Your task to perform on an android device: toggle javascript in the chrome app Image 0: 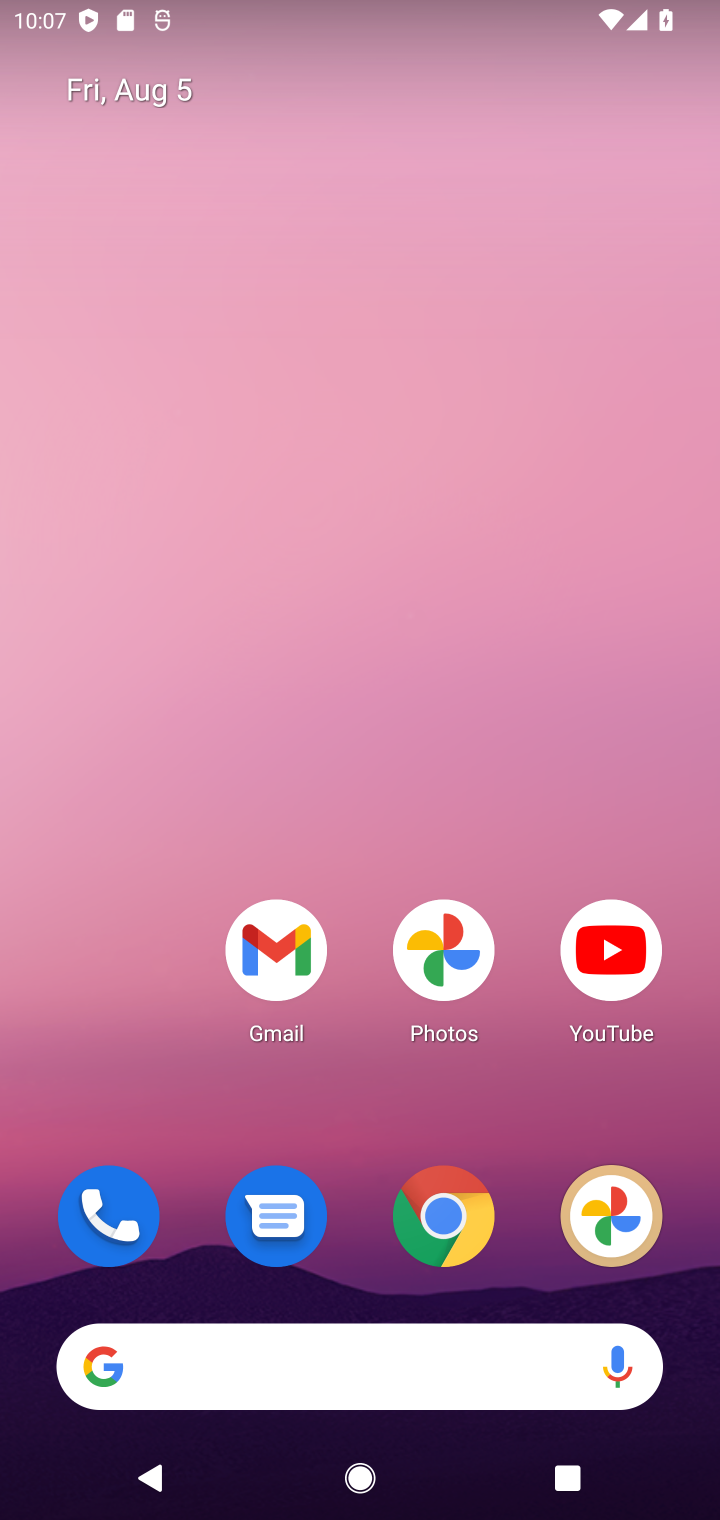
Step 0: drag from (412, 1400) to (440, 243)
Your task to perform on an android device: toggle javascript in the chrome app Image 1: 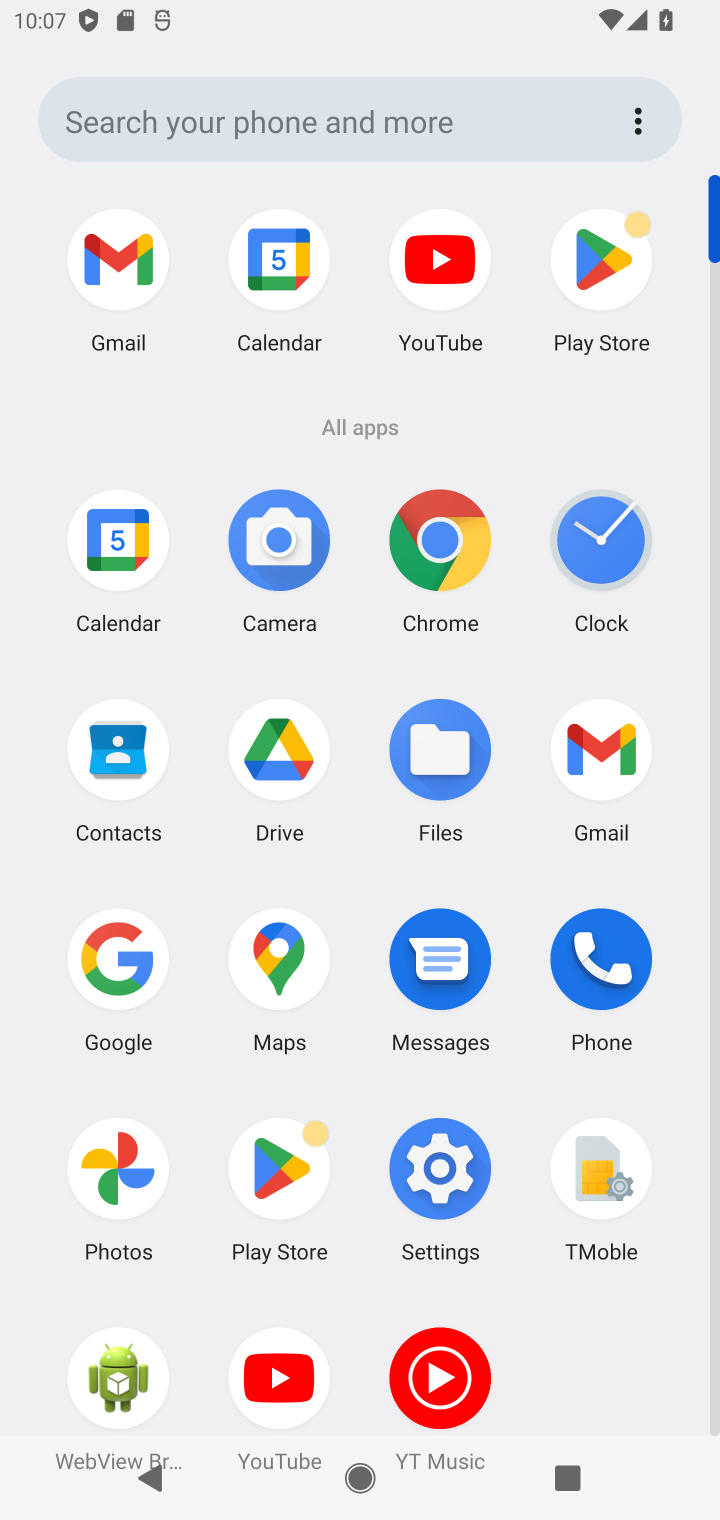
Step 1: click (424, 544)
Your task to perform on an android device: toggle javascript in the chrome app Image 2: 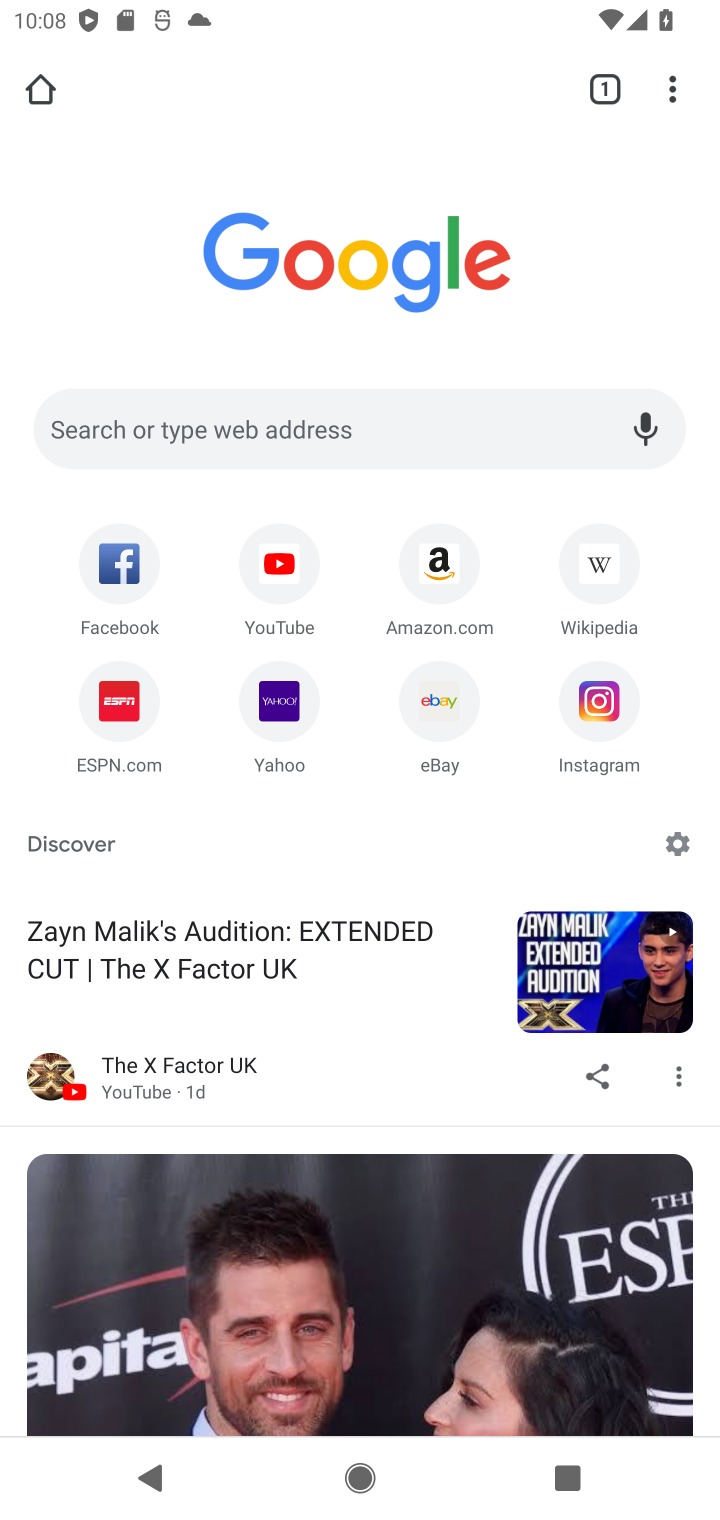
Step 2: drag from (669, 87) to (397, 794)
Your task to perform on an android device: toggle javascript in the chrome app Image 3: 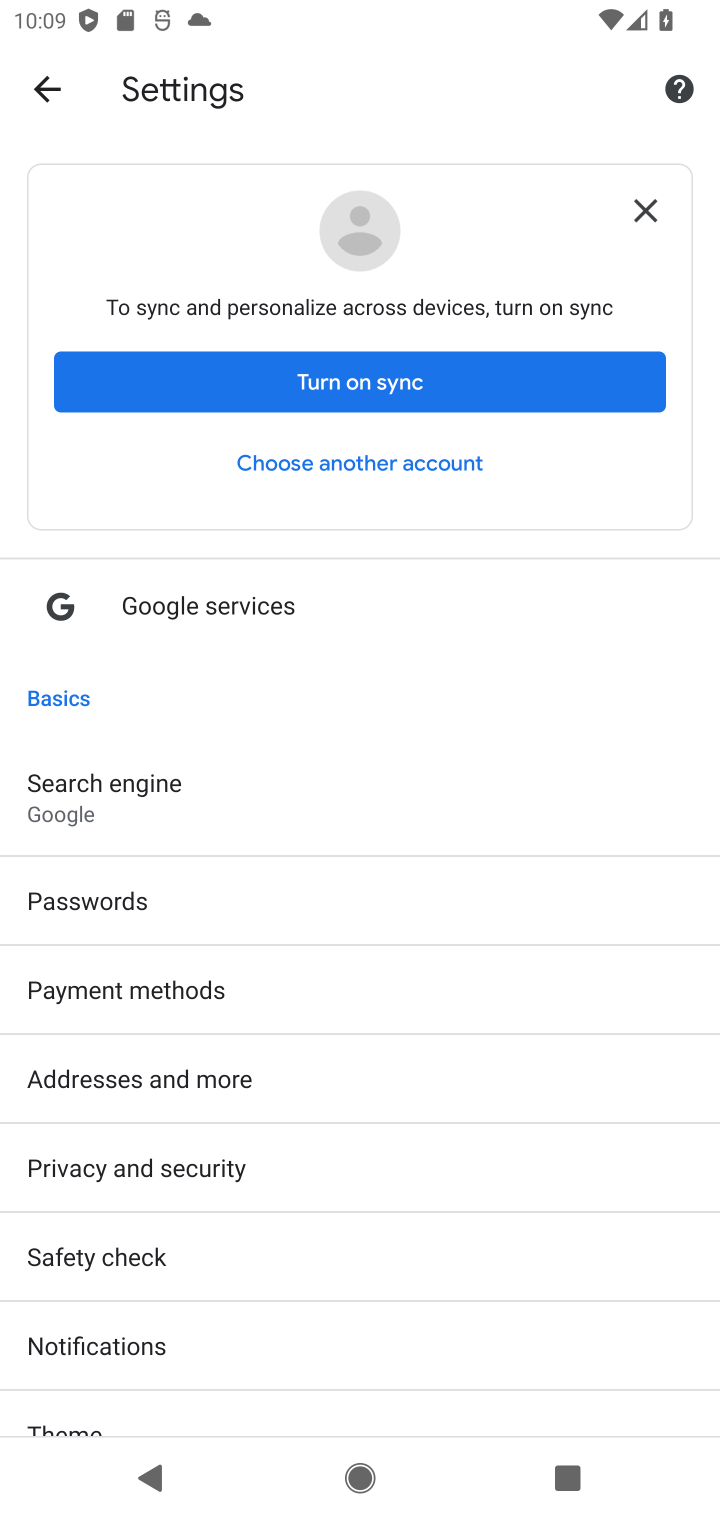
Step 3: drag from (284, 1278) to (355, 392)
Your task to perform on an android device: toggle javascript in the chrome app Image 4: 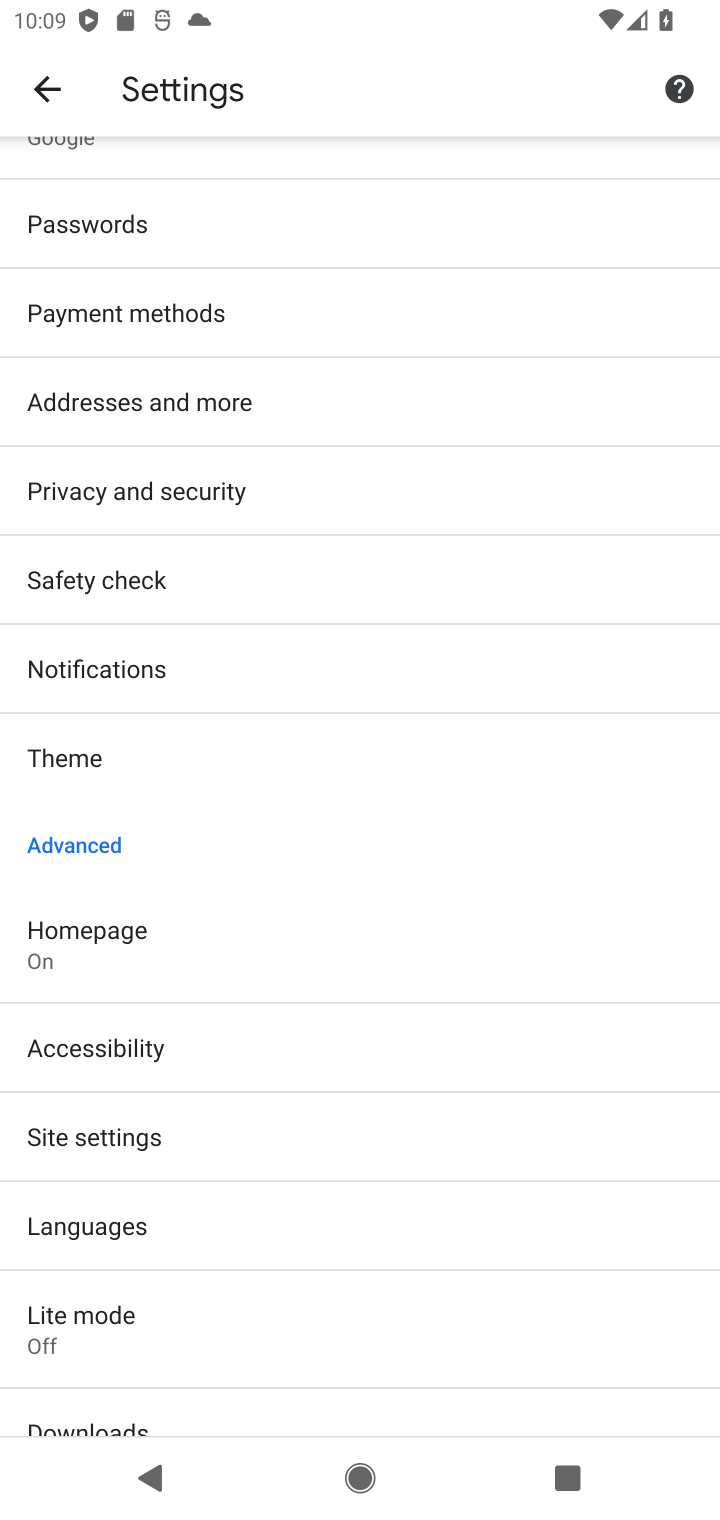
Step 4: click (213, 1135)
Your task to perform on an android device: toggle javascript in the chrome app Image 5: 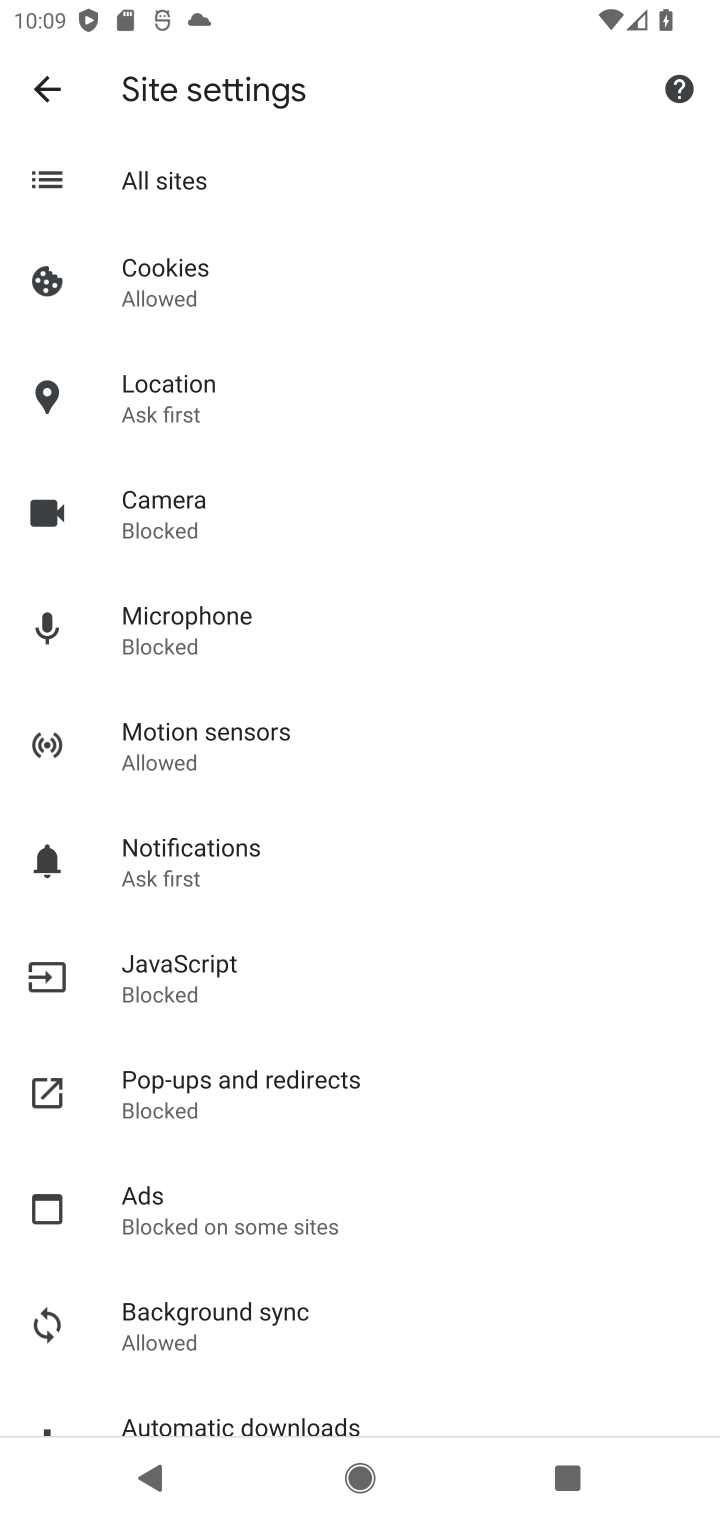
Step 5: click (246, 1012)
Your task to perform on an android device: toggle javascript in the chrome app Image 6: 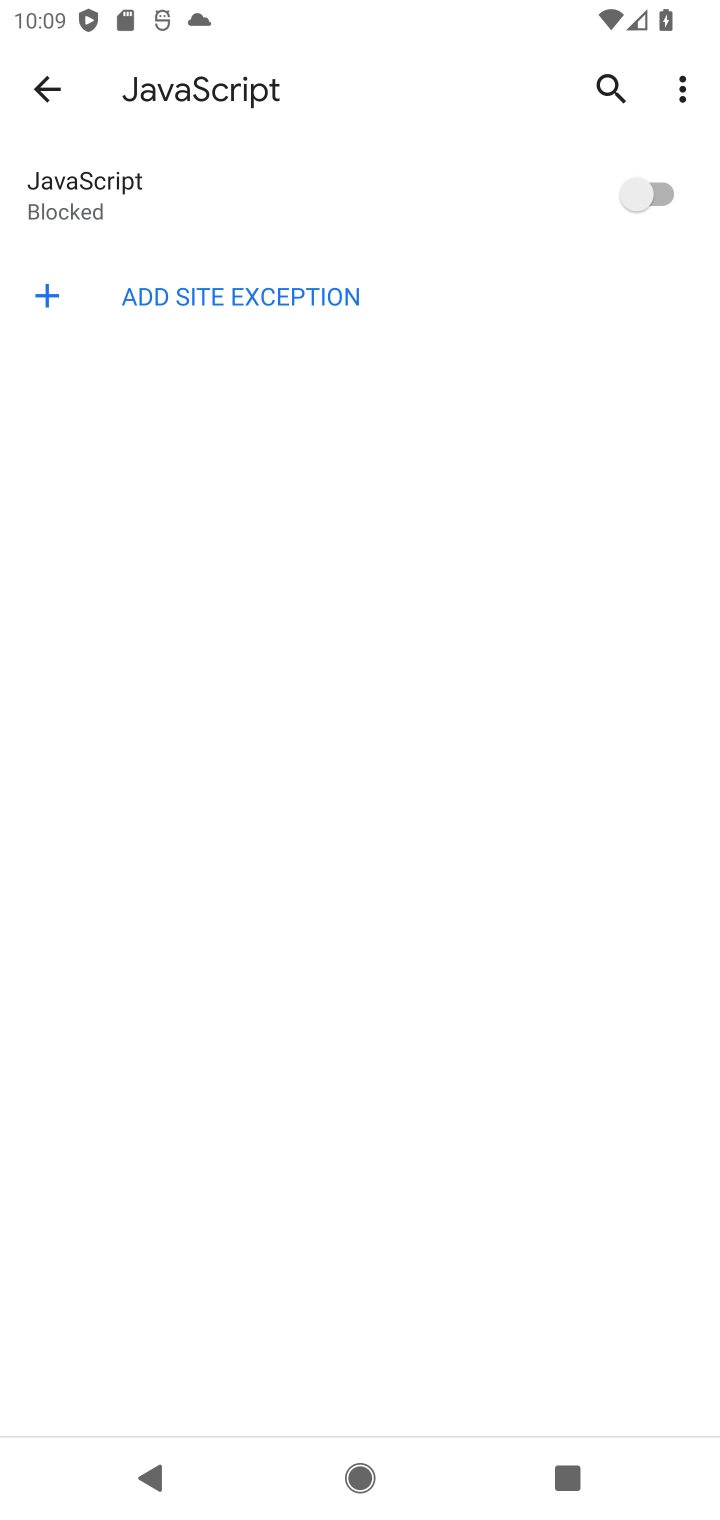
Step 6: click (661, 192)
Your task to perform on an android device: toggle javascript in the chrome app Image 7: 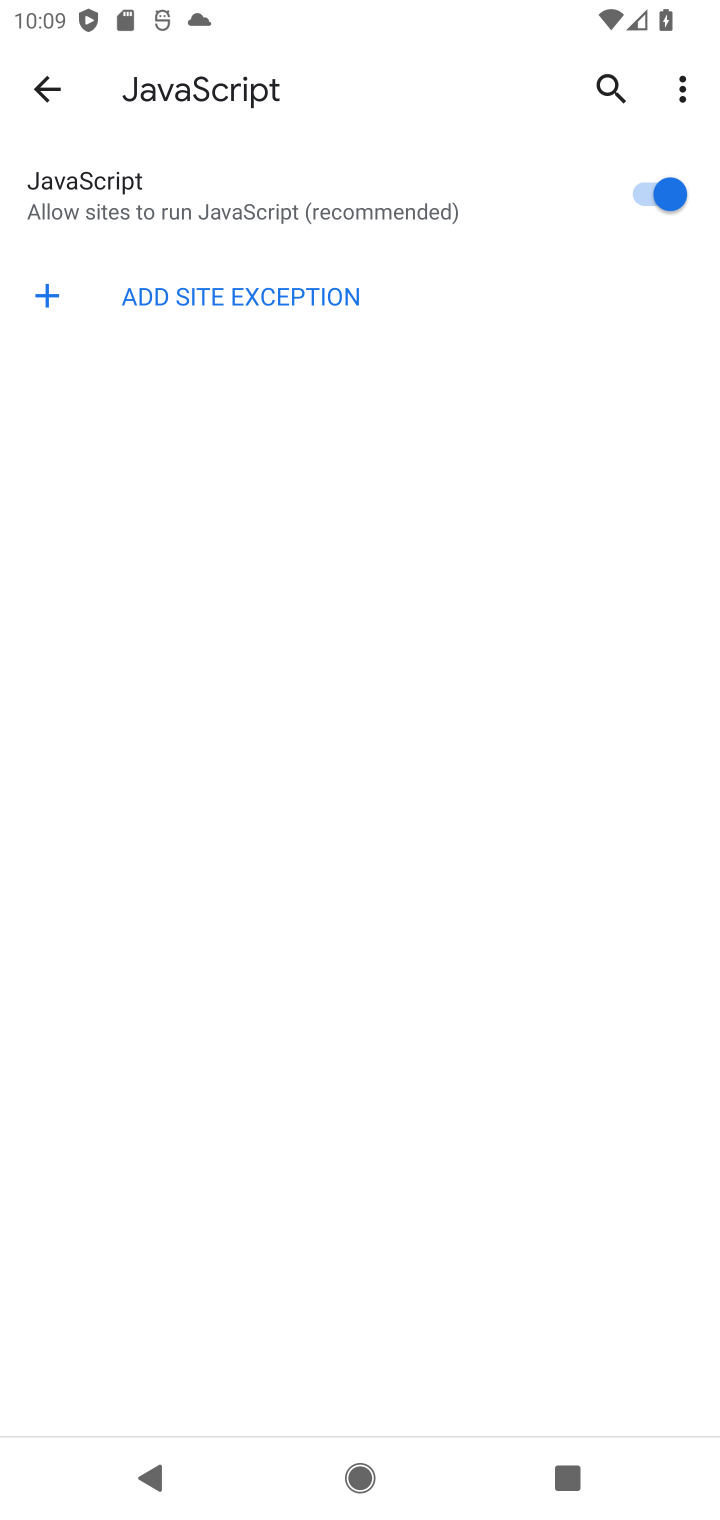
Step 7: task complete